Your task to perform on an android device: open sync settings in chrome Image 0: 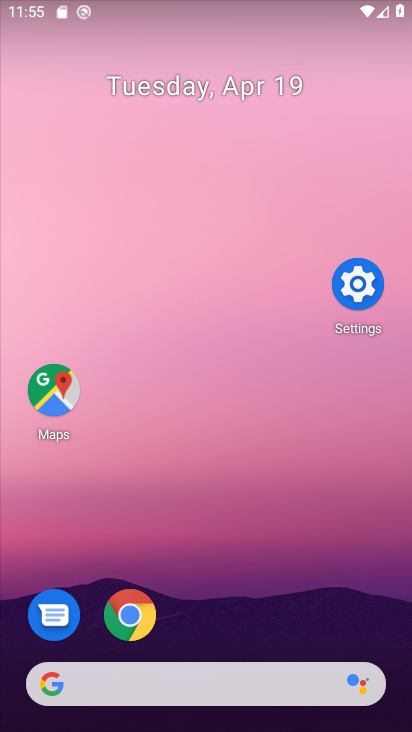
Step 0: click (132, 609)
Your task to perform on an android device: open sync settings in chrome Image 1: 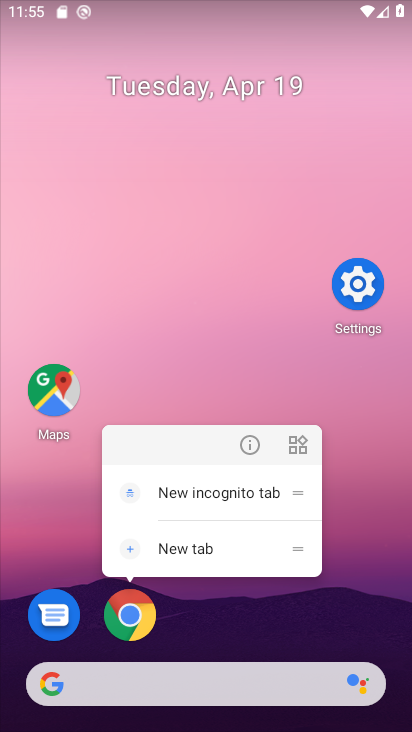
Step 1: click (252, 442)
Your task to perform on an android device: open sync settings in chrome Image 2: 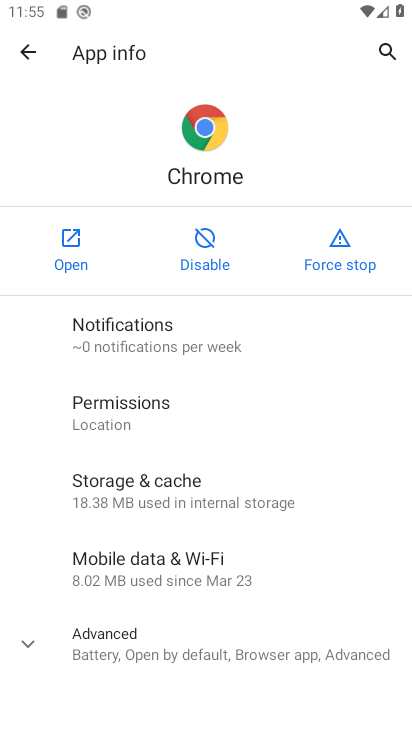
Step 2: click (62, 241)
Your task to perform on an android device: open sync settings in chrome Image 3: 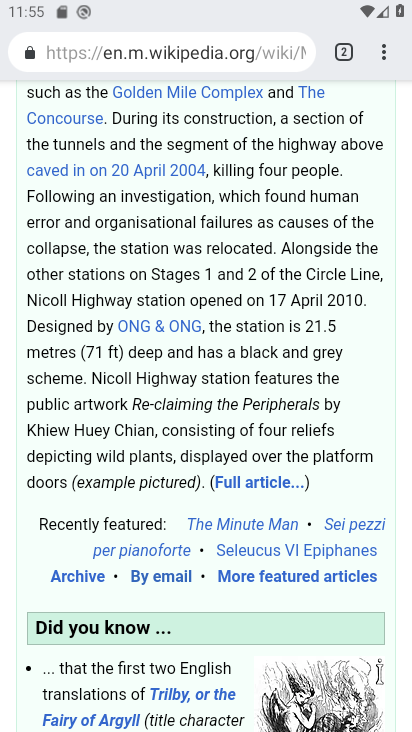
Step 3: drag from (192, 640) to (302, 693)
Your task to perform on an android device: open sync settings in chrome Image 4: 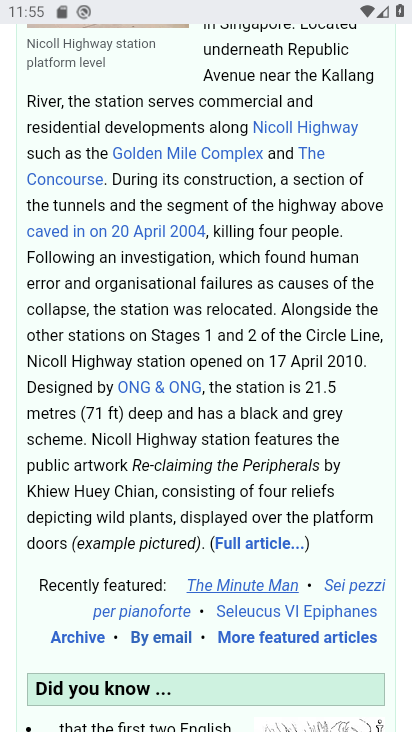
Step 4: click (383, 51)
Your task to perform on an android device: open sync settings in chrome Image 5: 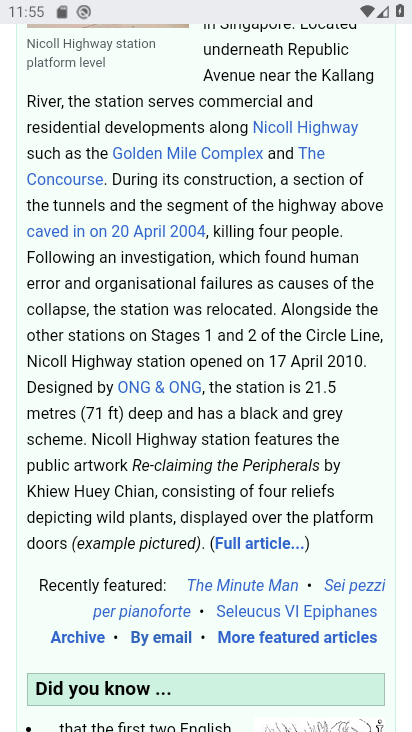
Step 5: drag from (379, 73) to (327, 404)
Your task to perform on an android device: open sync settings in chrome Image 6: 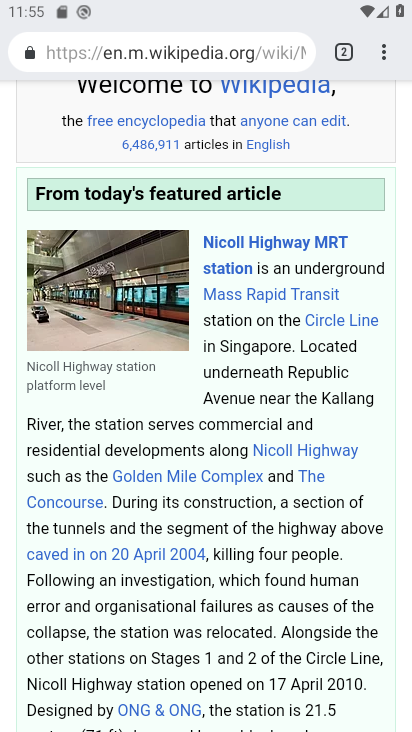
Step 6: drag from (381, 50) to (235, 655)
Your task to perform on an android device: open sync settings in chrome Image 7: 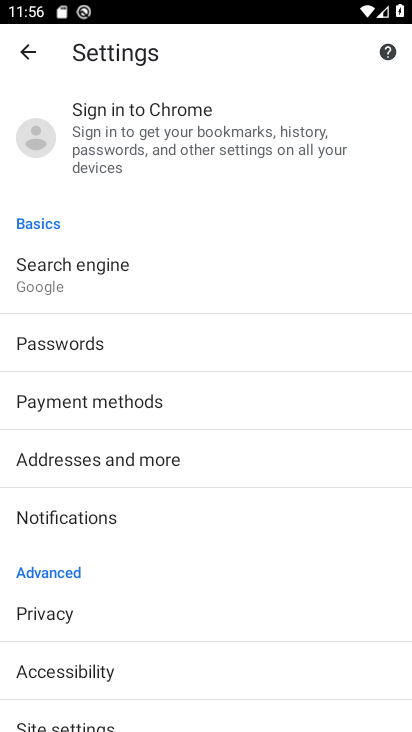
Step 7: drag from (184, 660) to (295, 215)
Your task to perform on an android device: open sync settings in chrome Image 8: 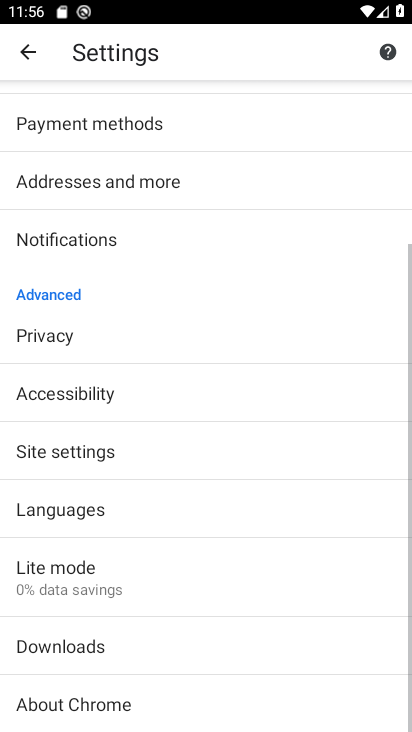
Step 8: click (87, 436)
Your task to perform on an android device: open sync settings in chrome Image 9: 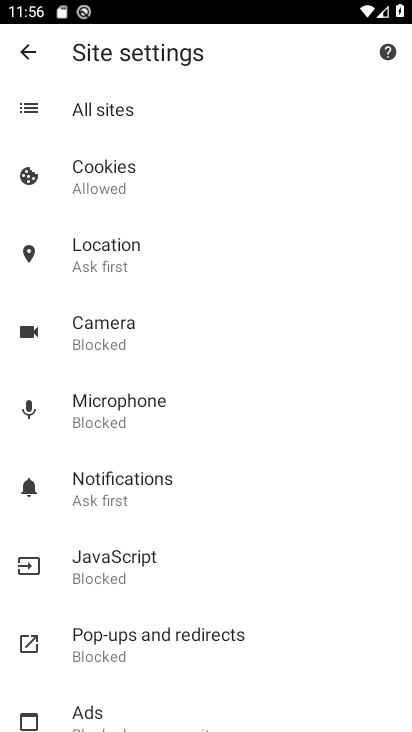
Step 9: drag from (138, 629) to (243, 284)
Your task to perform on an android device: open sync settings in chrome Image 10: 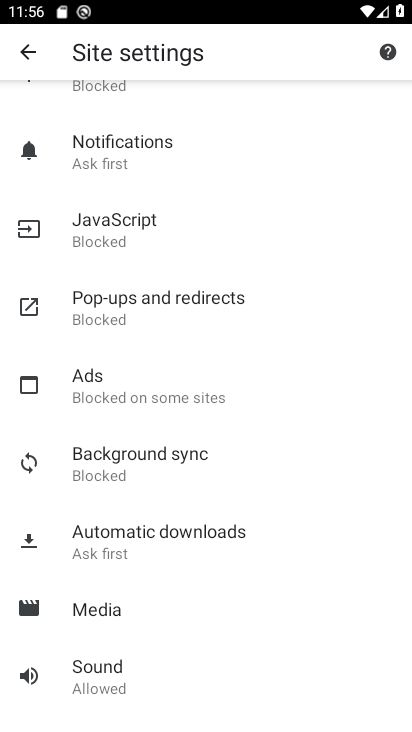
Step 10: click (174, 464)
Your task to perform on an android device: open sync settings in chrome Image 11: 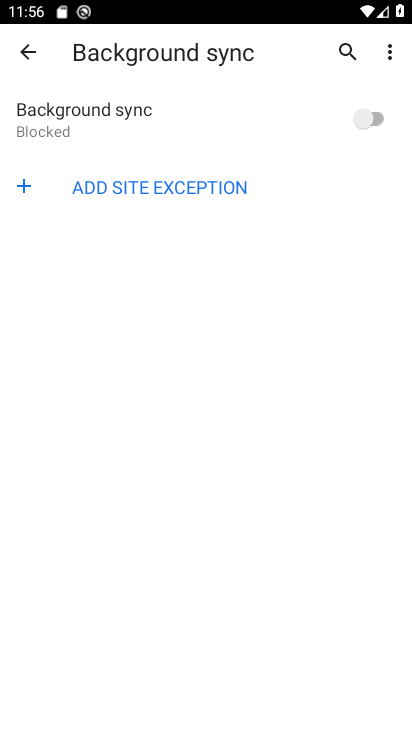
Step 11: task complete